Your task to perform on an android device: Open calendar and show me the third week of next month Image 0: 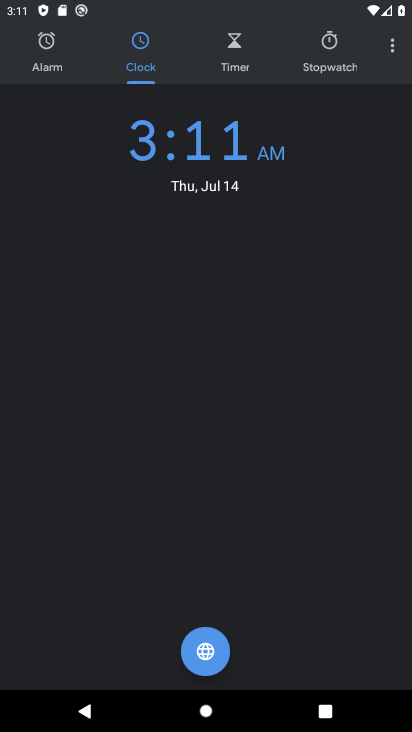
Step 0: press home button
Your task to perform on an android device: Open calendar and show me the third week of next month Image 1: 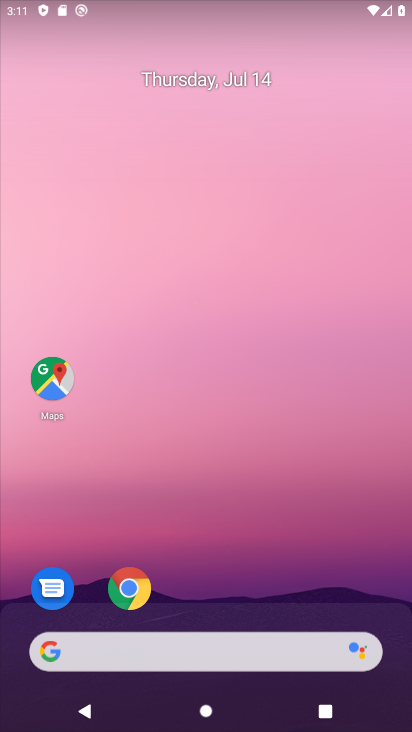
Step 1: drag from (188, 672) to (306, 76)
Your task to perform on an android device: Open calendar and show me the third week of next month Image 2: 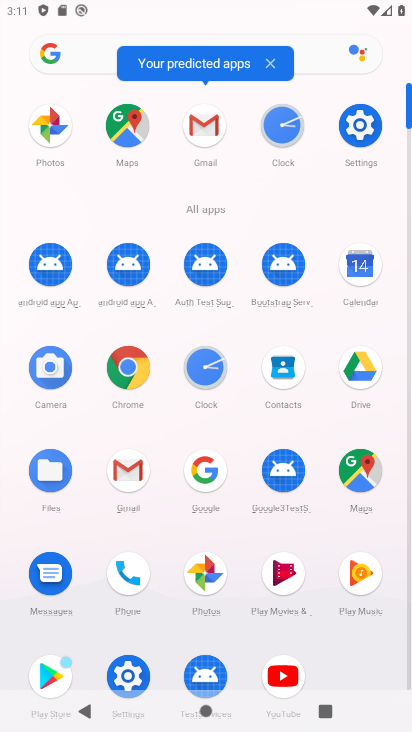
Step 2: click (359, 265)
Your task to perform on an android device: Open calendar and show me the third week of next month Image 3: 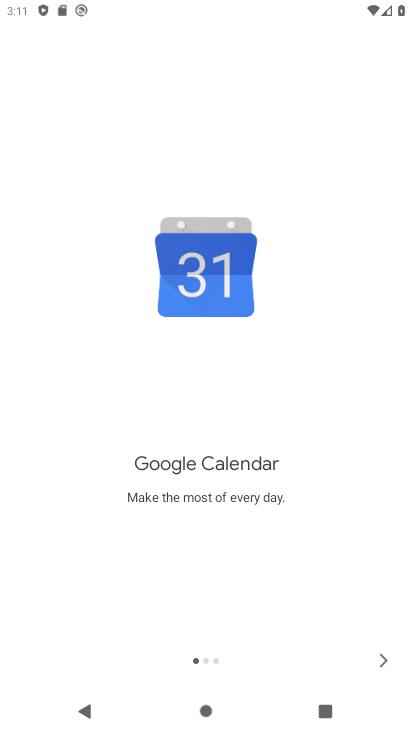
Step 3: click (385, 657)
Your task to perform on an android device: Open calendar and show me the third week of next month Image 4: 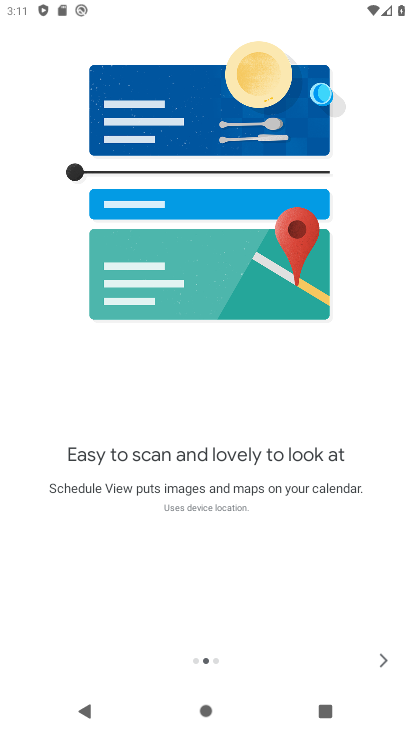
Step 4: click (385, 657)
Your task to perform on an android device: Open calendar and show me the third week of next month Image 5: 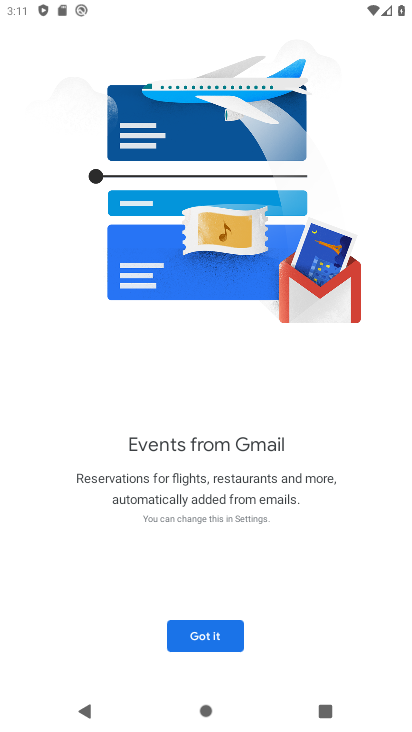
Step 5: click (208, 636)
Your task to perform on an android device: Open calendar and show me the third week of next month Image 6: 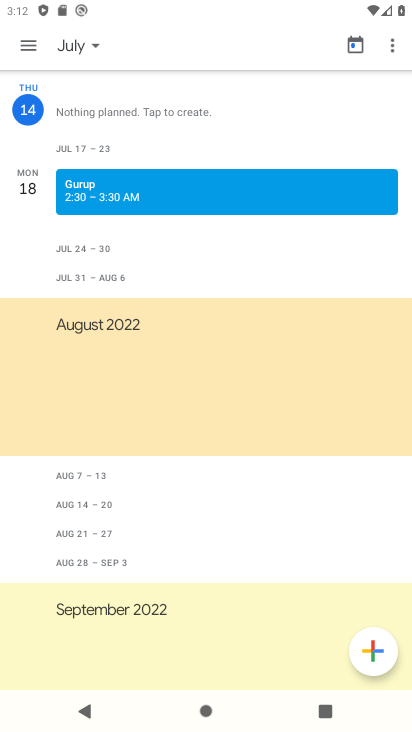
Step 6: click (94, 48)
Your task to perform on an android device: Open calendar and show me the third week of next month Image 7: 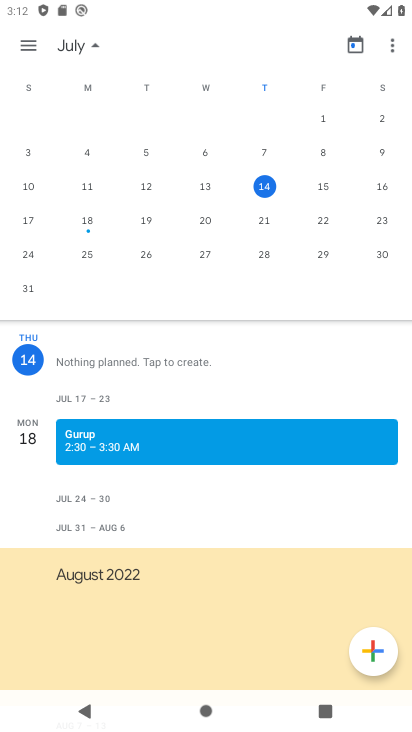
Step 7: drag from (365, 195) to (13, 260)
Your task to perform on an android device: Open calendar and show me the third week of next month Image 8: 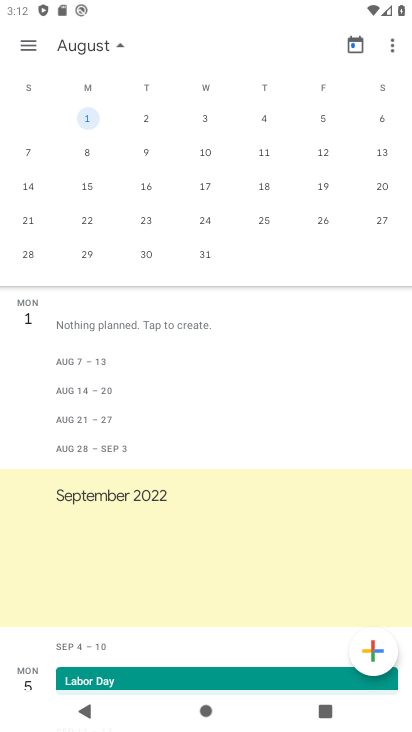
Step 8: click (89, 191)
Your task to perform on an android device: Open calendar and show me the third week of next month Image 9: 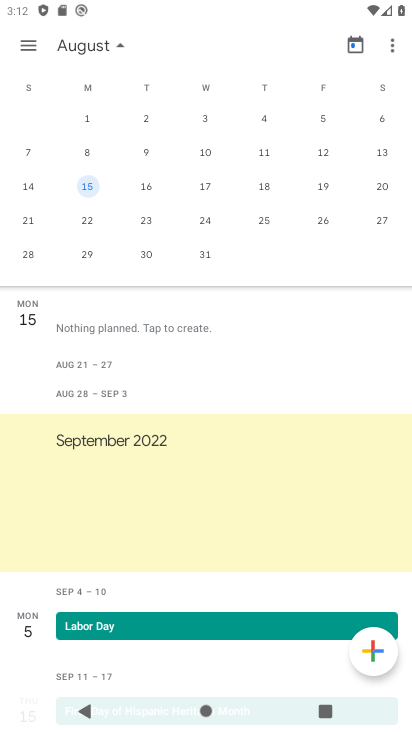
Step 9: click (27, 42)
Your task to perform on an android device: Open calendar and show me the third week of next month Image 10: 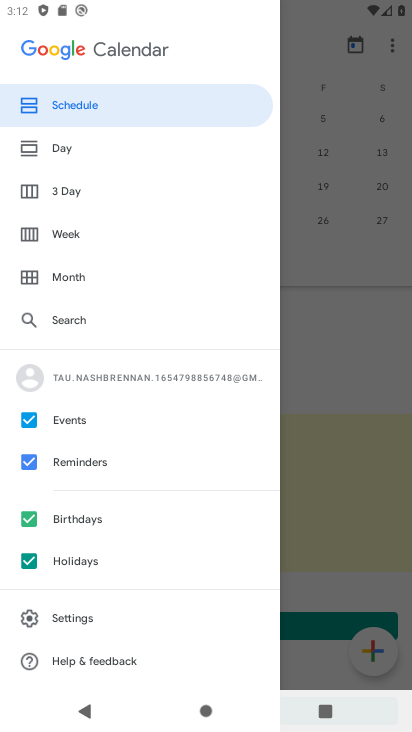
Step 10: click (68, 238)
Your task to perform on an android device: Open calendar and show me the third week of next month Image 11: 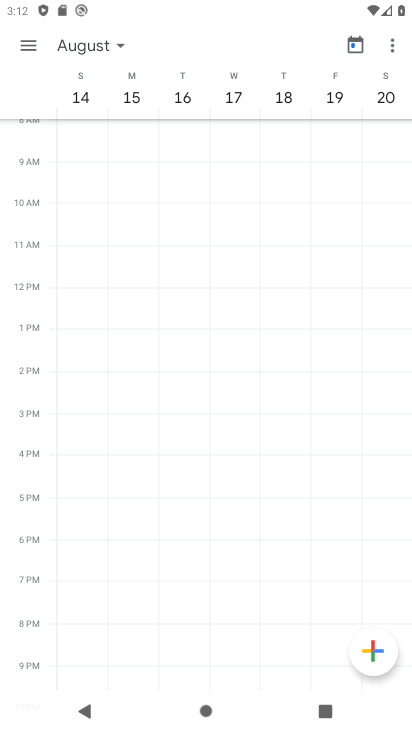
Step 11: task complete